Your task to perform on an android device: turn on data saver in the chrome app Image 0: 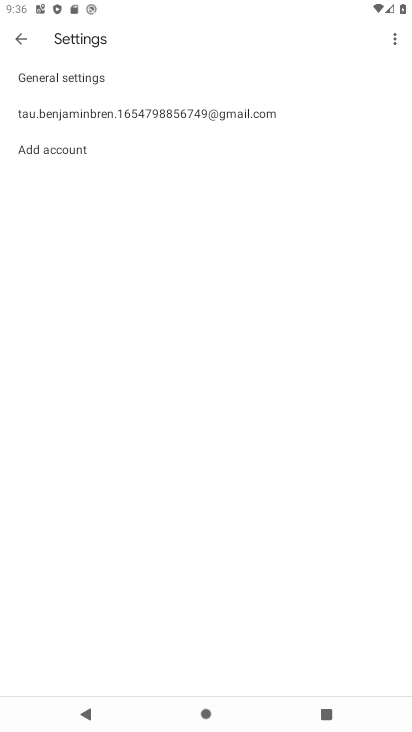
Step 0: press home button
Your task to perform on an android device: turn on data saver in the chrome app Image 1: 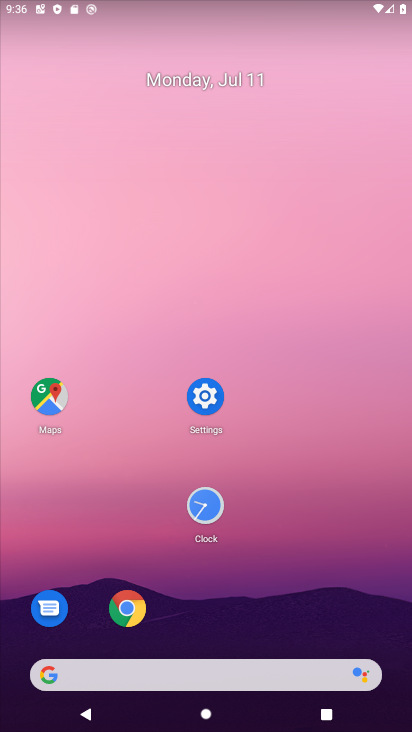
Step 1: click (128, 613)
Your task to perform on an android device: turn on data saver in the chrome app Image 2: 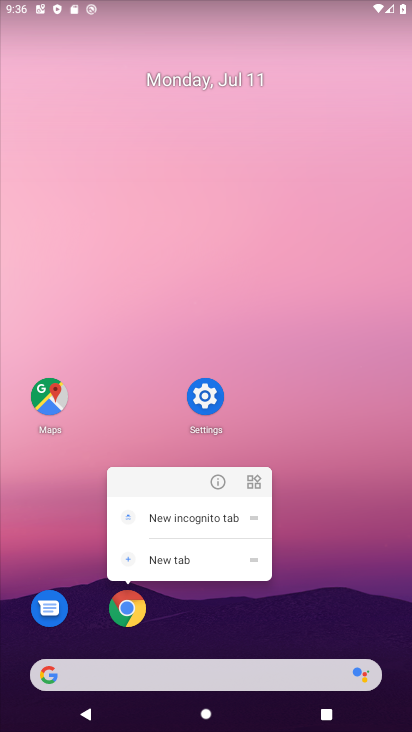
Step 2: click (127, 608)
Your task to perform on an android device: turn on data saver in the chrome app Image 3: 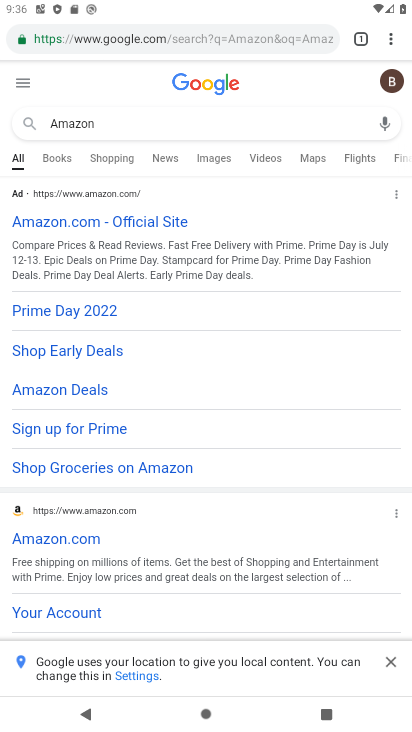
Step 3: click (388, 36)
Your task to perform on an android device: turn on data saver in the chrome app Image 4: 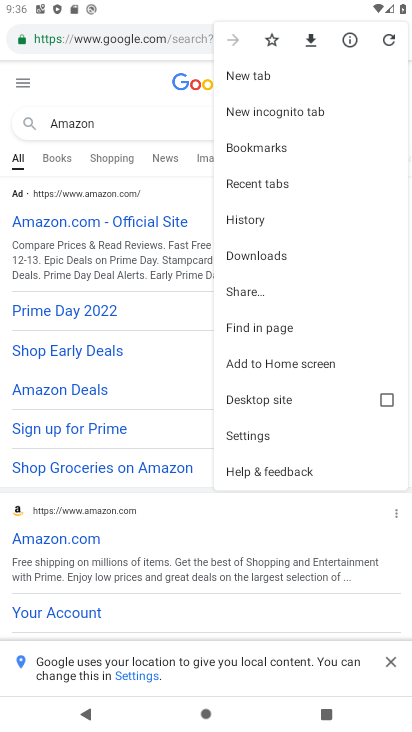
Step 4: click (266, 435)
Your task to perform on an android device: turn on data saver in the chrome app Image 5: 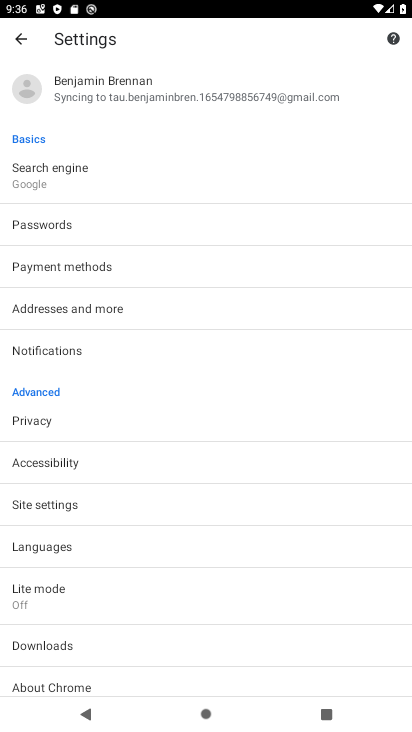
Step 5: click (38, 598)
Your task to perform on an android device: turn on data saver in the chrome app Image 6: 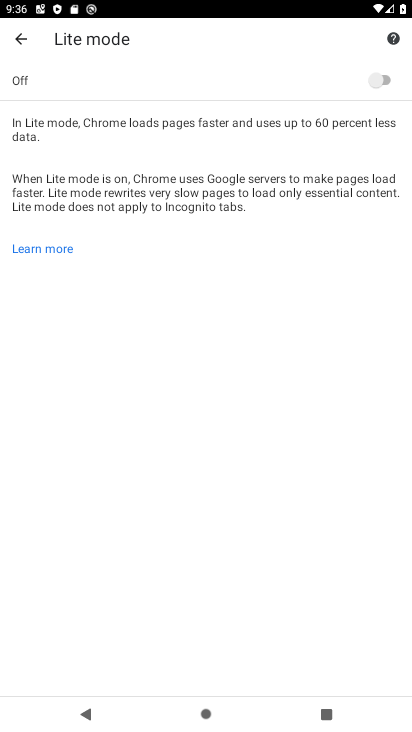
Step 6: click (388, 84)
Your task to perform on an android device: turn on data saver in the chrome app Image 7: 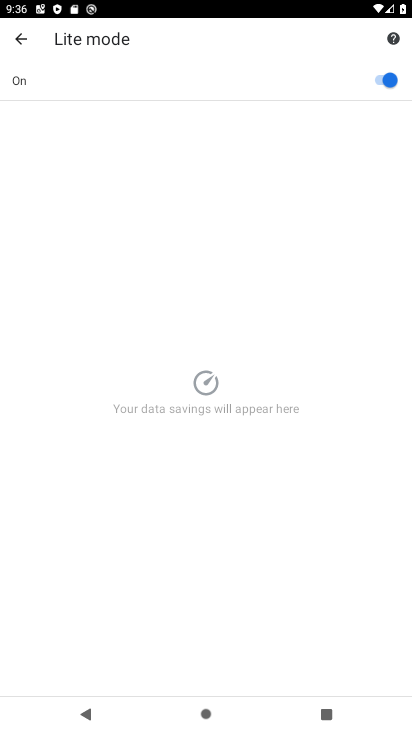
Step 7: task complete